Your task to perform on an android device: Search for pizza restaurants on Maps Image 0: 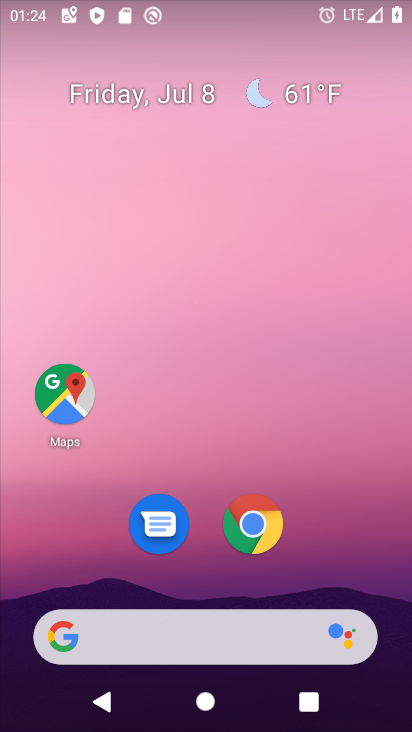
Step 0: click (71, 391)
Your task to perform on an android device: Search for pizza restaurants on Maps Image 1: 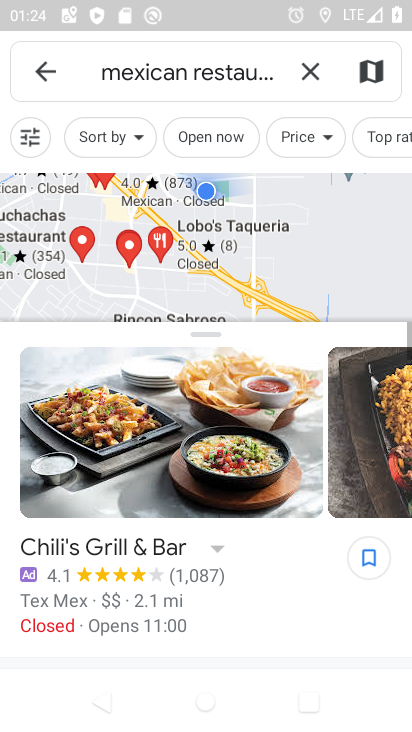
Step 1: click (310, 71)
Your task to perform on an android device: Search for pizza restaurants on Maps Image 2: 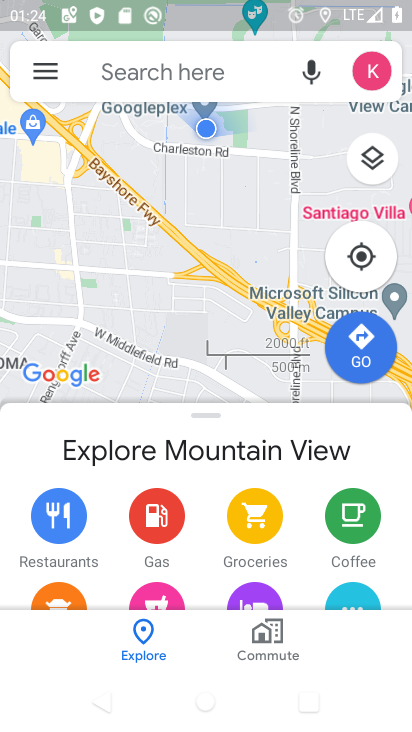
Step 2: click (247, 73)
Your task to perform on an android device: Search for pizza restaurants on Maps Image 3: 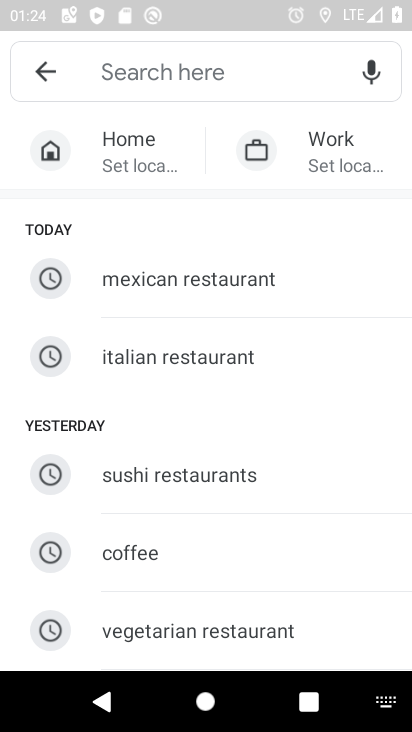
Step 3: drag from (291, 549) to (293, 345)
Your task to perform on an android device: Search for pizza restaurants on Maps Image 4: 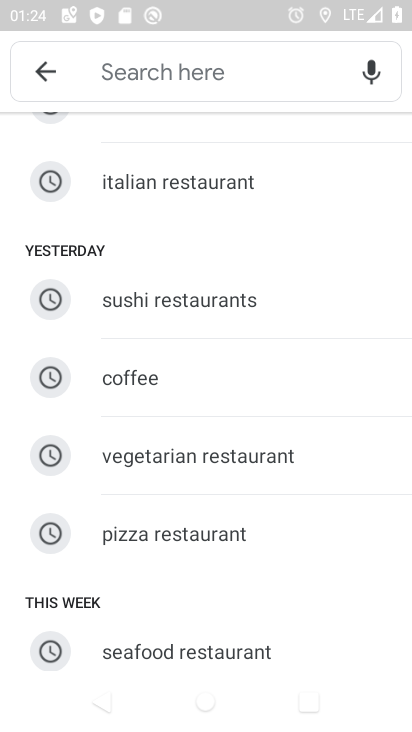
Step 4: click (222, 531)
Your task to perform on an android device: Search for pizza restaurants on Maps Image 5: 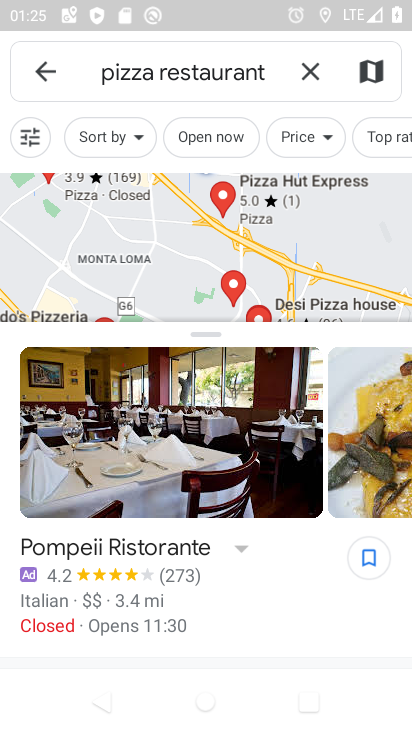
Step 5: task complete